Your task to perform on an android device: set default search engine in the chrome app Image 0: 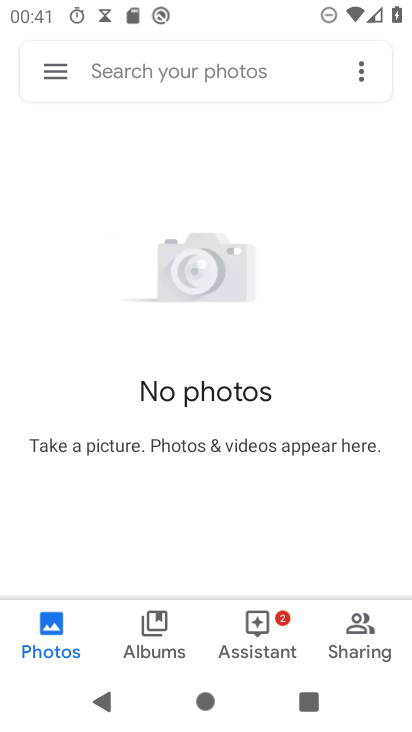
Step 0: press home button
Your task to perform on an android device: set default search engine in the chrome app Image 1: 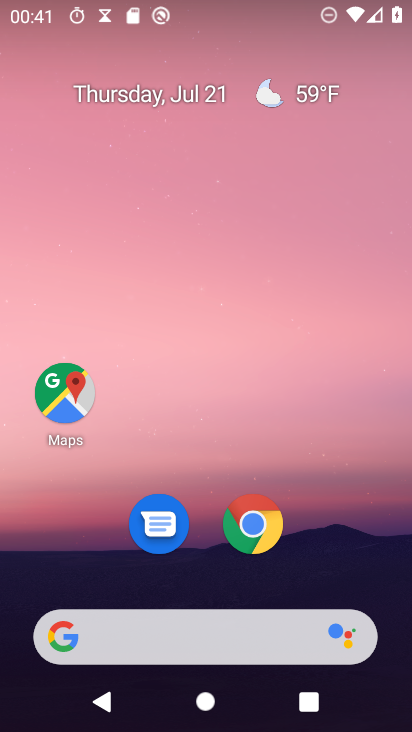
Step 1: click (251, 527)
Your task to perform on an android device: set default search engine in the chrome app Image 2: 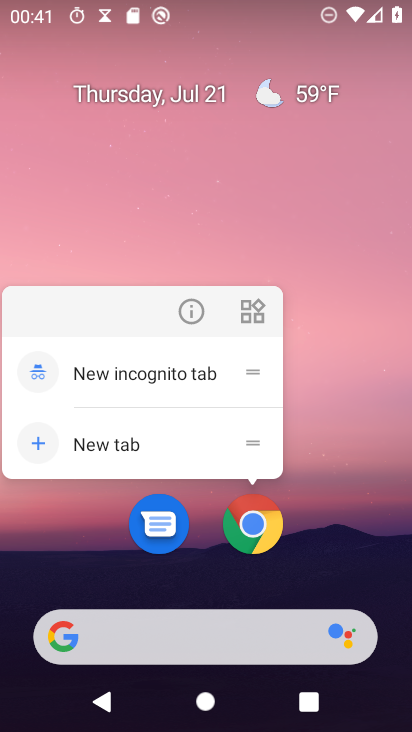
Step 2: click (251, 527)
Your task to perform on an android device: set default search engine in the chrome app Image 3: 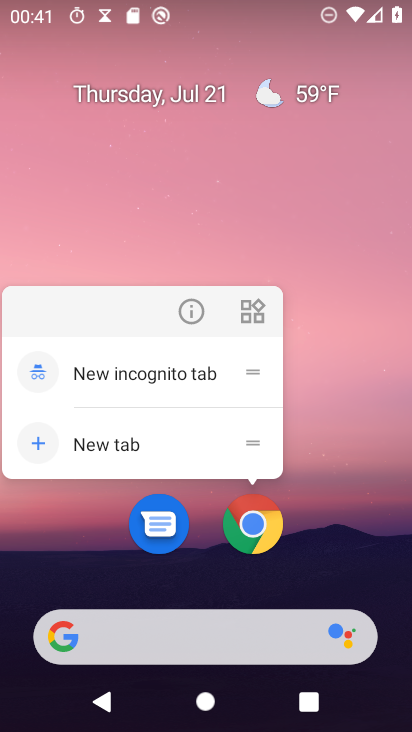
Step 3: click (252, 533)
Your task to perform on an android device: set default search engine in the chrome app Image 4: 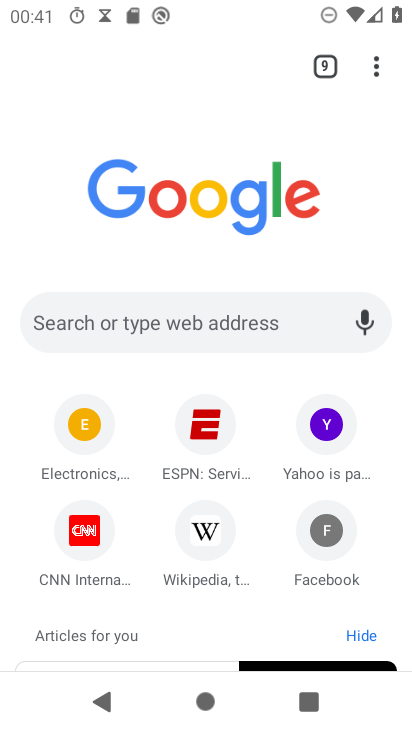
Step 4: drag from (371, 69) to (220, 554)
Your task to perform on an android device: set default search engine in the chrome app Image 5: 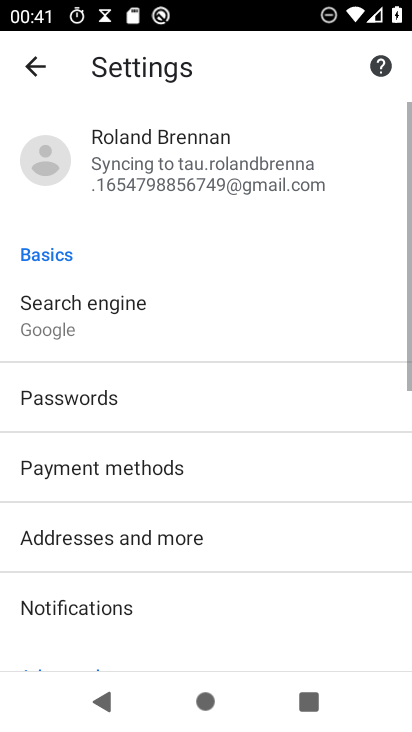
Step 5: click (77, 306)
Your task to perform on an android device: set default search engine in the chrome app Image 6: 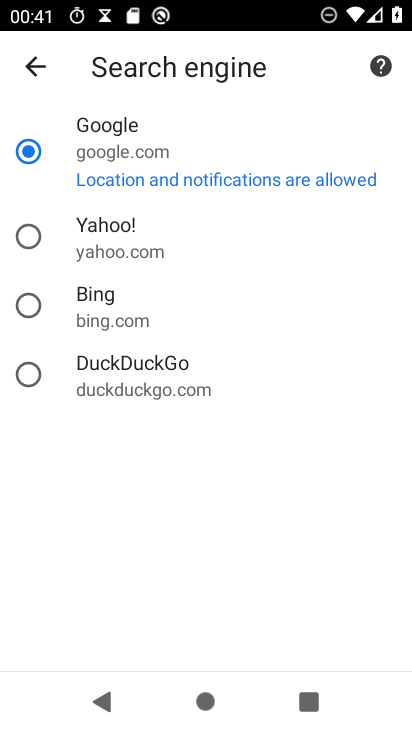
Step 6: click (23, 232)
Your task to perform on an android device: set default search engine in the chrome app Image 7: 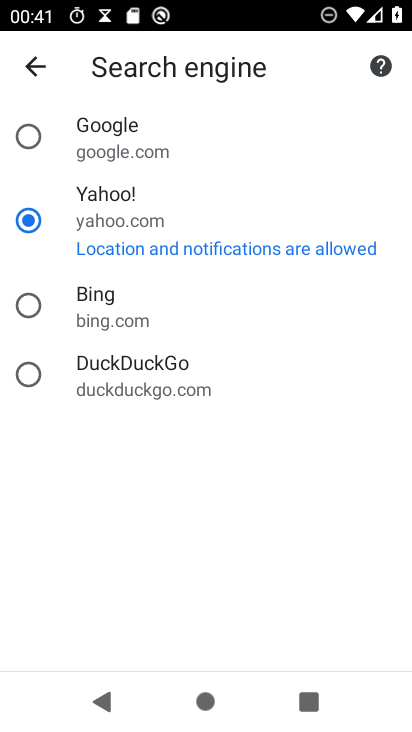
Step 7: task complete